Your task to perform on an android device: Open the map Image 0: 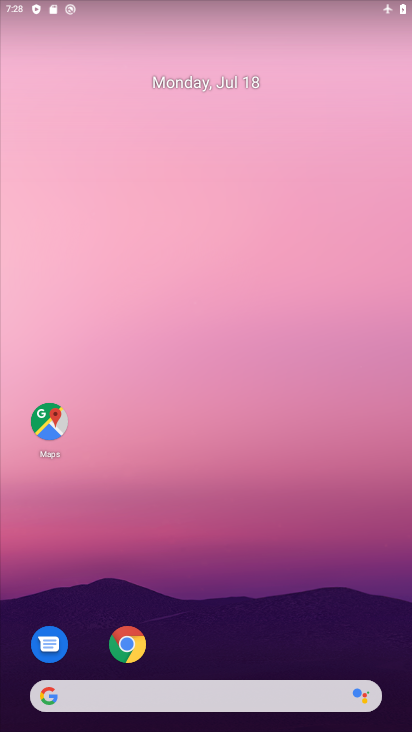
Step 0: drag from (330, 652) to (393, 160)
Your task to perform on an android device: Open the map Image 1: 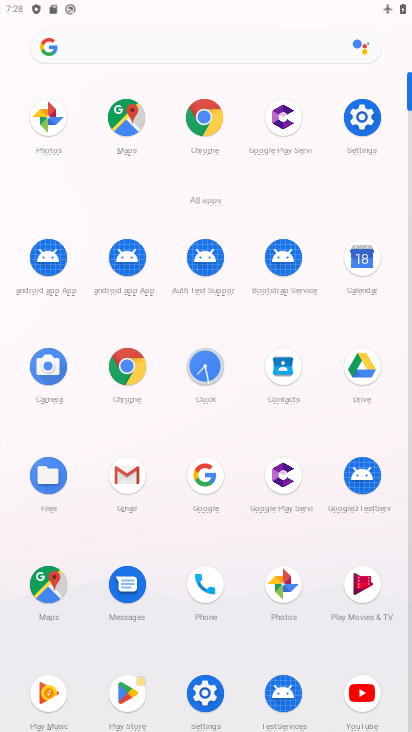
Step 1: click (130, 121)
Your task to perform on an android device: Open the map Image 2: 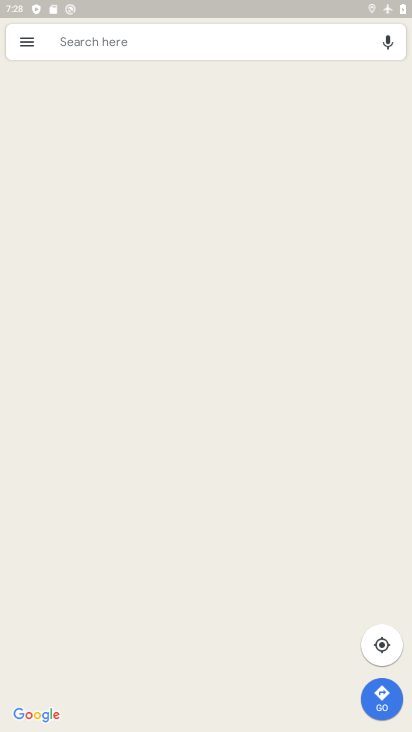
Step 2: task complete